Your task to perform on an android device: Go to CNN.com Image 0: 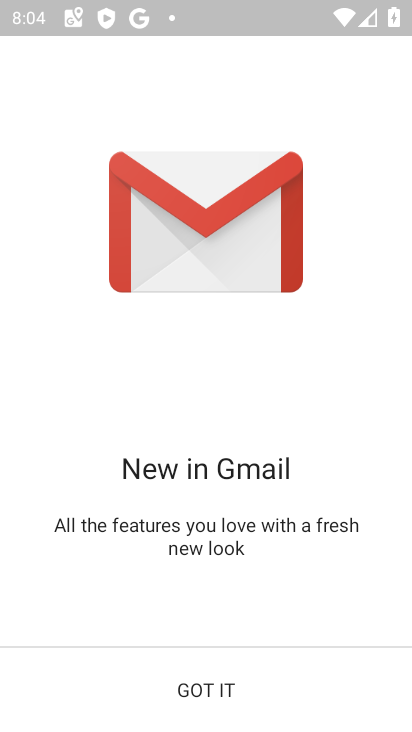
Step 0: press home button
Your task to perform on an android device: Go to CNN.com Image 1: 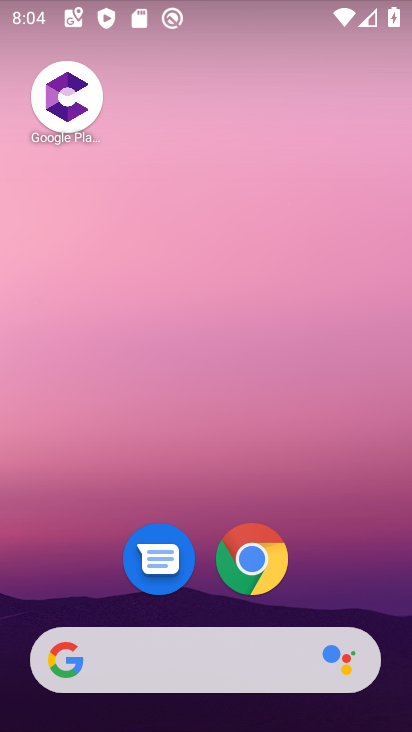
Step 1: click (251, 569)
Your task to perform on an android device: Go to CNN.com Image 2: 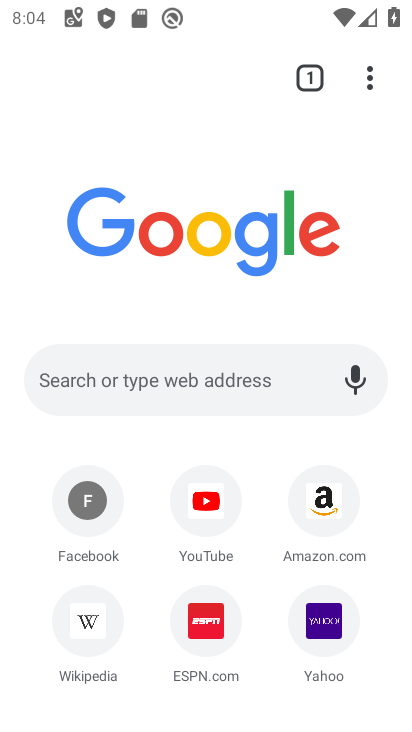
Step 2: click (226, 391)
Your task to perform on an android device: Go to CNN.com Image 3: 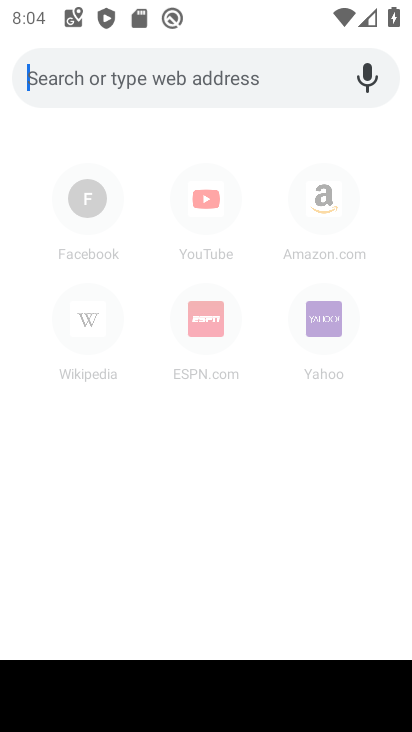
Step 3: type "cnn"
Your task to perform on an android device: Go to CNN.com Image 4: 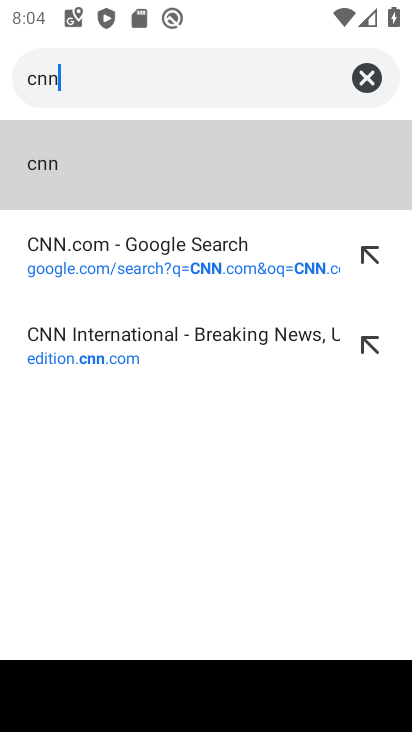
Step 4: type ""
Your task to perform on an android device: Go to CNN.com Image 5: 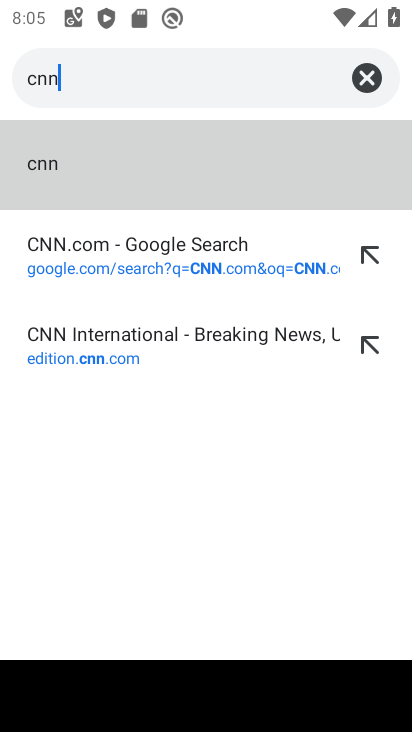
Step 5: click (171, 278)
Your task to perform on an android device: Go to CNN.com Image 6: 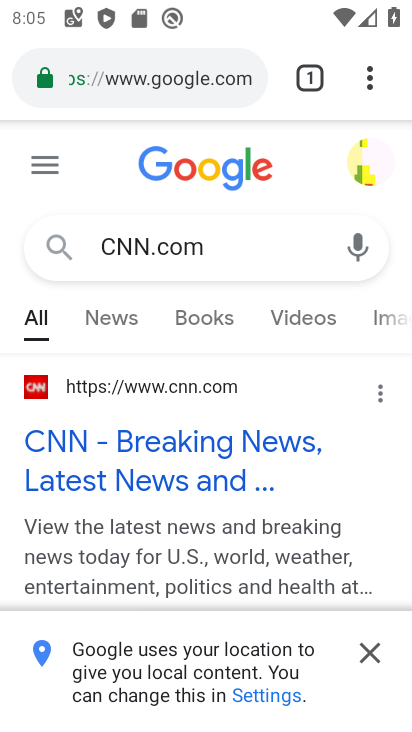
Step 6: click (202, 452)
Your task to perform on an android device: Go to CNN.com Image 7: 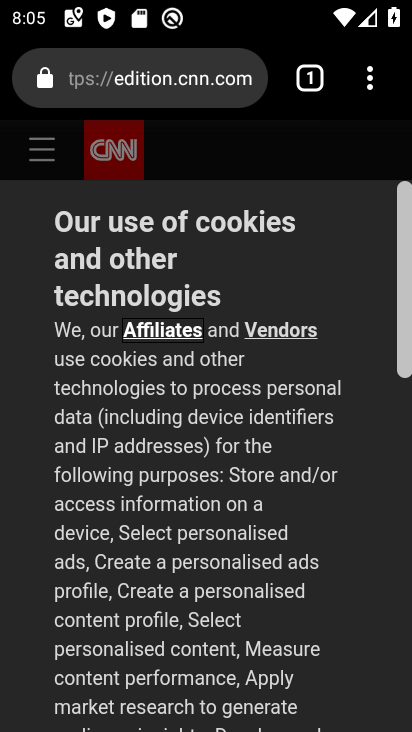
Step 7: task complete